Your task to perform on an android device: Open the web browser Image 0: 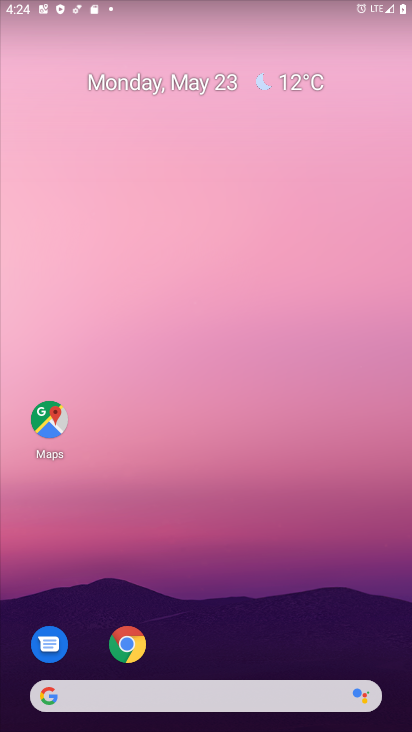
Step 0: click (134, 647)
Your task to perform on an android device: Open the web browser Image 1: 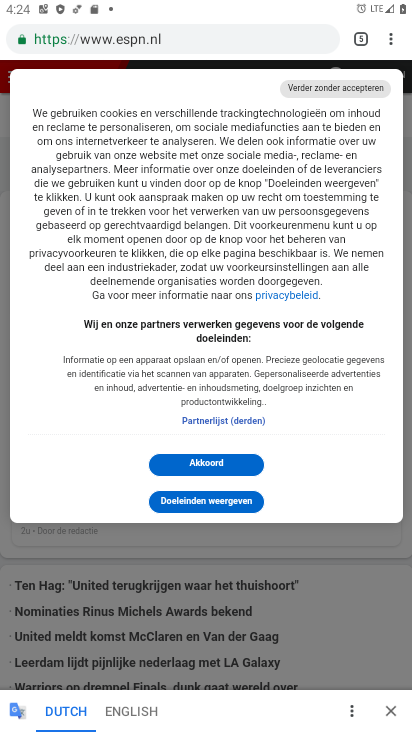
Step 1: task complete